Your task to perform on an android device: find photos in the google photos app Image 0: 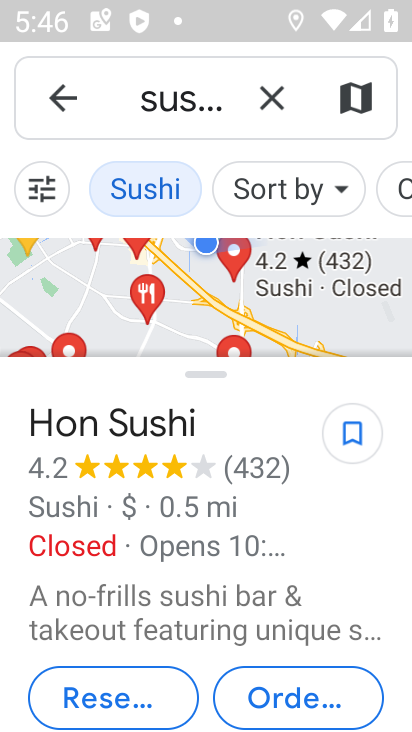
Step 0: press home button
Your task to perform on an android device: find photos in the google photos app Image 1: 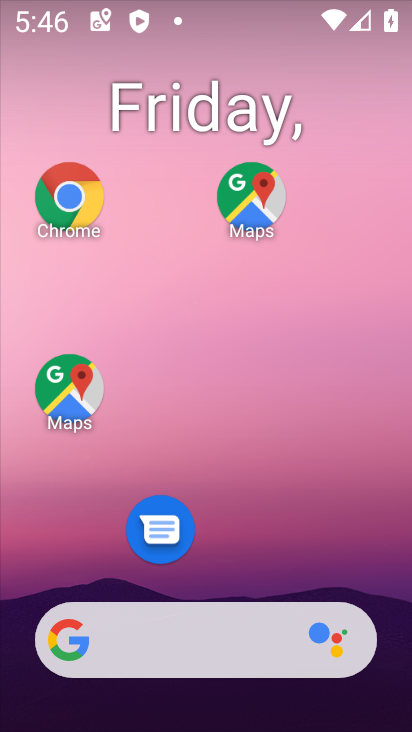
Step 1: drag from (258, 190) to (268, 144)
Your task to perform on an android device: find photos in the google photos app Image 2: 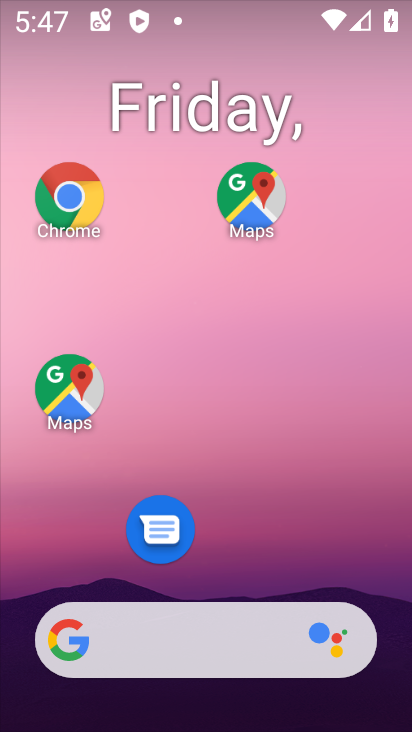
Step 2: drag from (259, 534) to (313, 99)
Your task to perform on an android device: find photos in the google photos app Image 3: 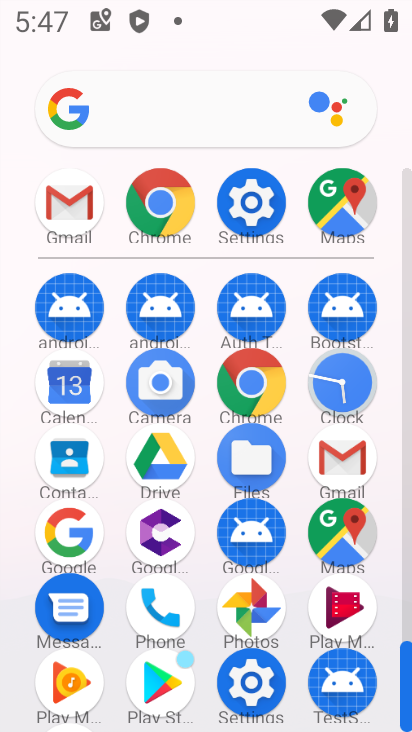
Step 3: click (255, 612)
Your task to perform on an android device: find photos in the google photos app Image 4: 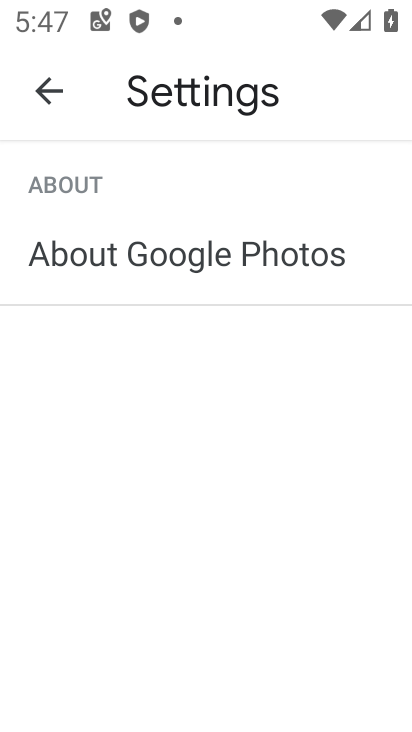
Step 4: click (58, 97)
Your task to perform on an android device: find photos in the google photos app Image 5: 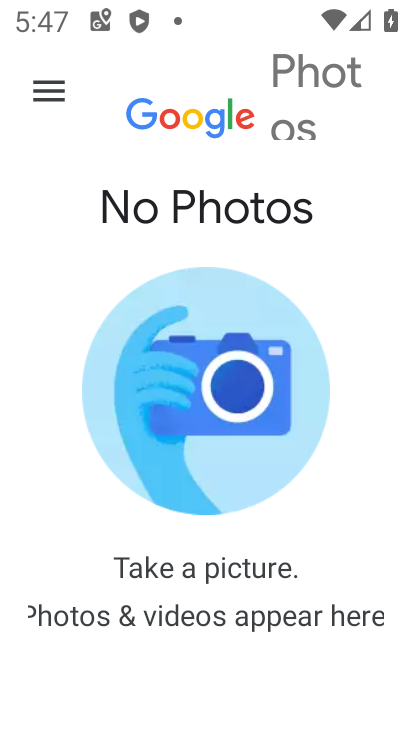
Step 5: task complete